Your task to perform on an android device: When is my next meeting? Image 0: 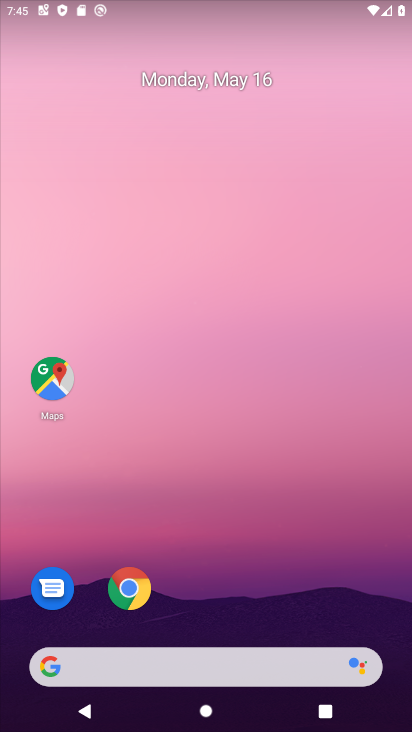
Step 0: drag from (202, 624) to (282, 87)
Your task to perform on an android device: When is my next meeting? Image 1: 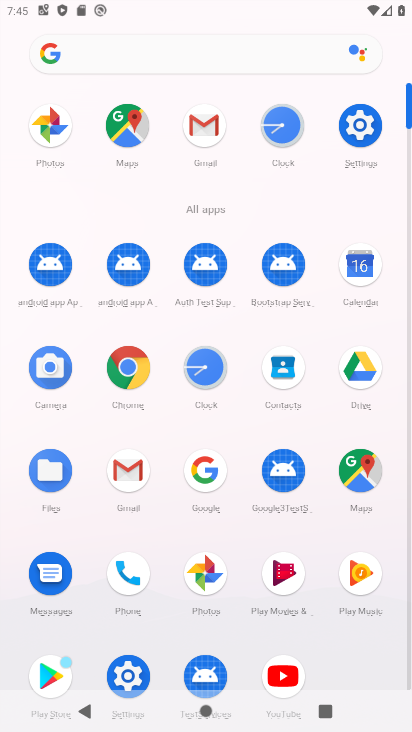
Step 1: click (366, 268)
Your task to perform on an android device: When is my next meeting? Image 2: 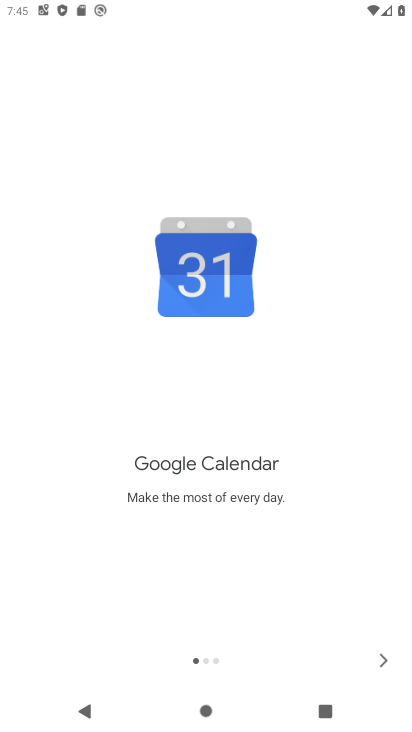
Step 2: click (395, 661)
Your task to perform on an android device: When is my next meeting? Image 3: 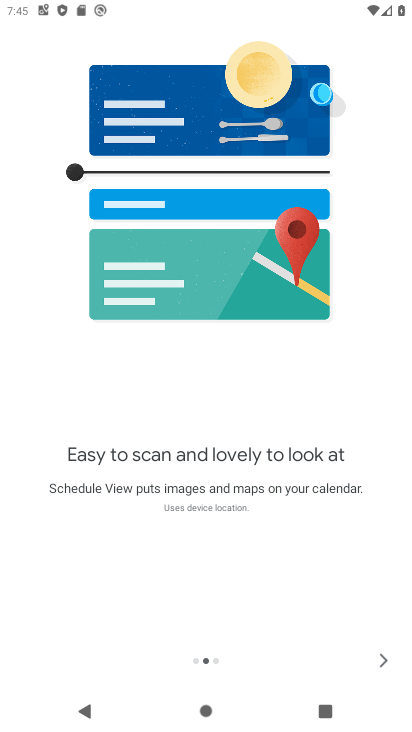
Step 3: click (381, 661)
Your task to perform on an android device: When is my next meeting? Image 4: 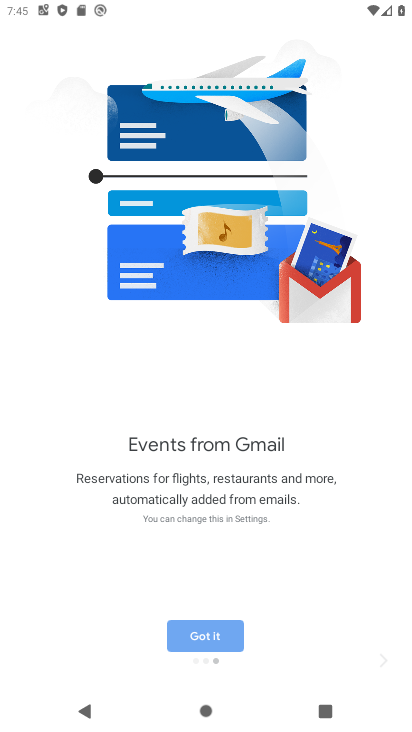
Step 4: click (381, 661)
Your task to perform on an android device: When is my next meeting? Image 5: 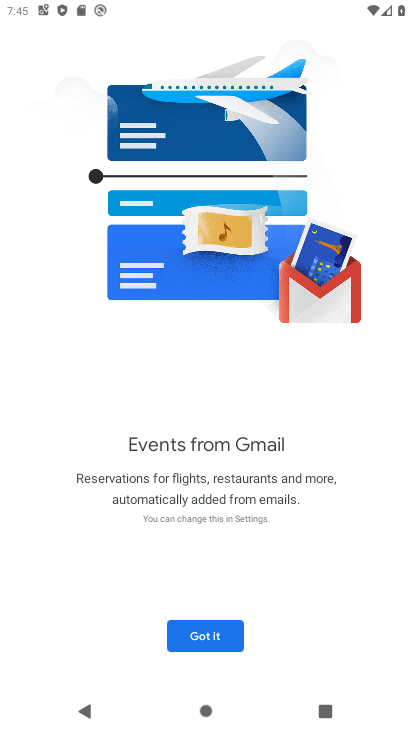
Step 5: click (224, 646)
Your task to perform on an android device: When is my next meeting? Image 6: 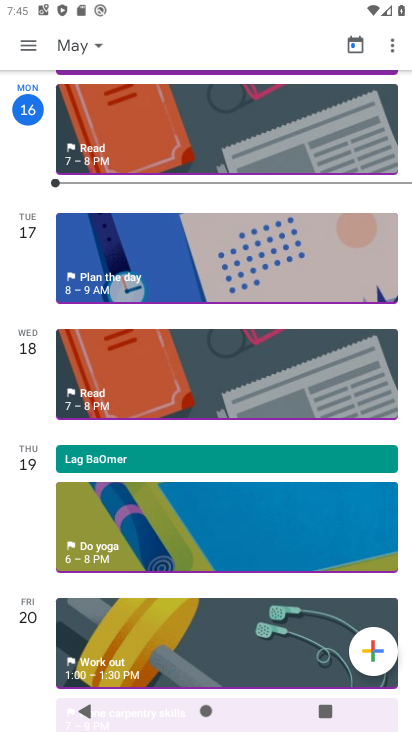
Step 6: click (95, 44)
Your task to perform on an android device: When is my next meeting? Image 7: 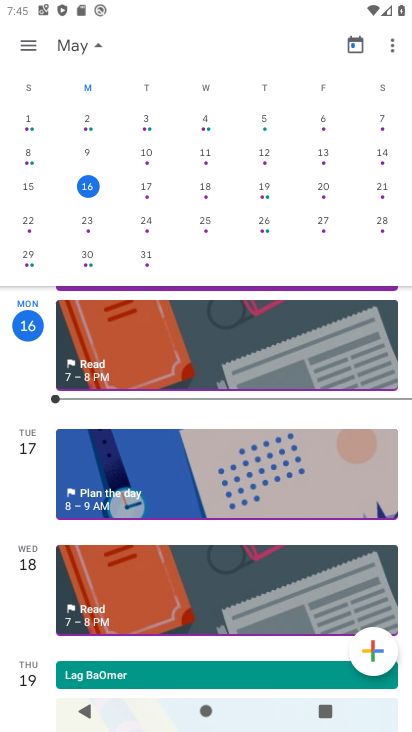
Step 7: drag from (392, 198) to (260, 159)
Your task to perform on an android device: When is my next meeting? Image 8: 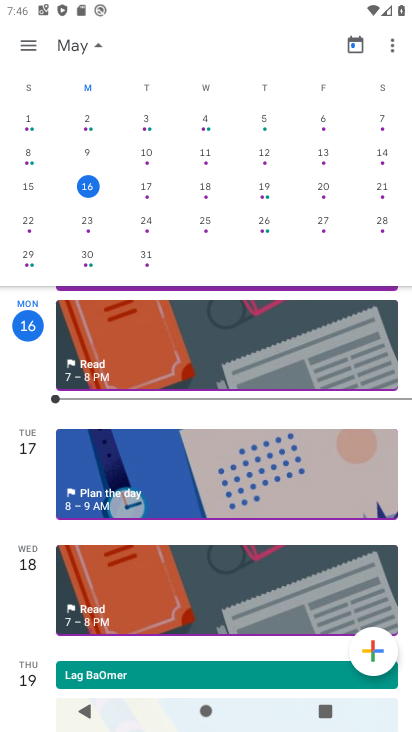
Step 8: click (144, 184)
Your task to perform on an android device: When is my next meeting? Image 9: 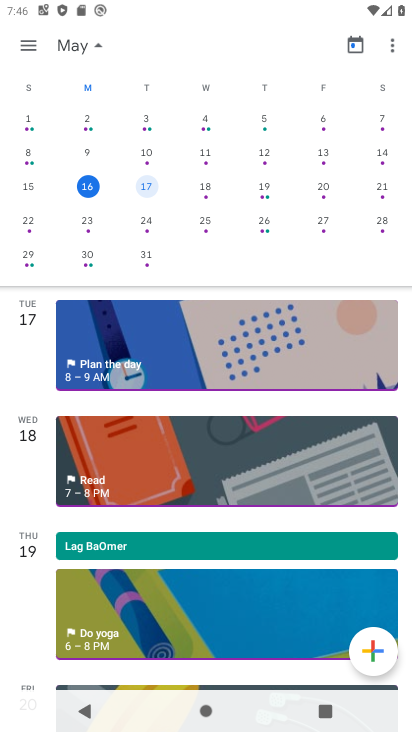
Step 9: click (201, 185)
Your task to perform on an android device: When is my next meeting? Image 10: 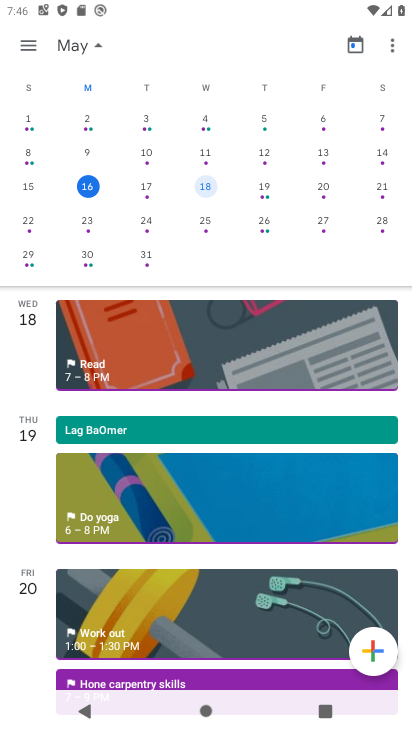
Step 10: click (262, 190)
Your task to perform on an android device: When is my next meeting? Image 11: 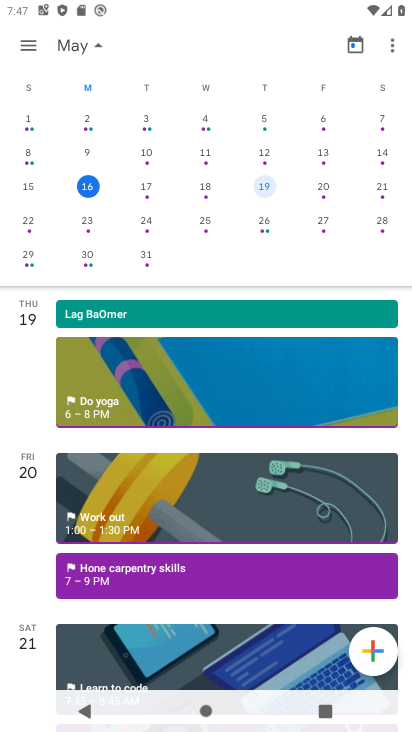
Step 11: click (330, 182)
Your task to perform on an android device: When is my next meeting? Image 12: 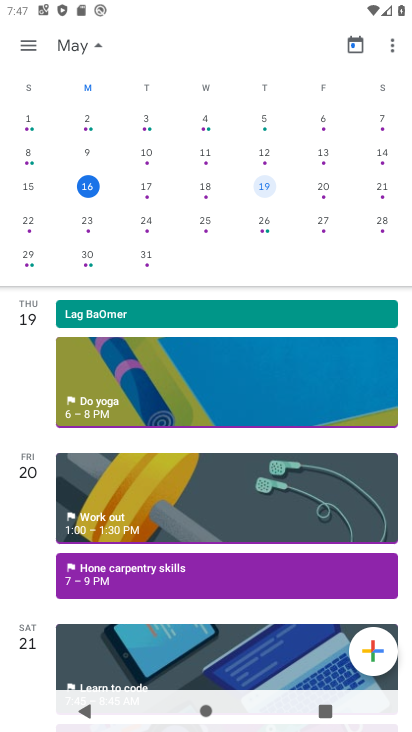
Step 12: click (324, 185)
Your task to perform on an android device: When is my next meeting? Image 13: 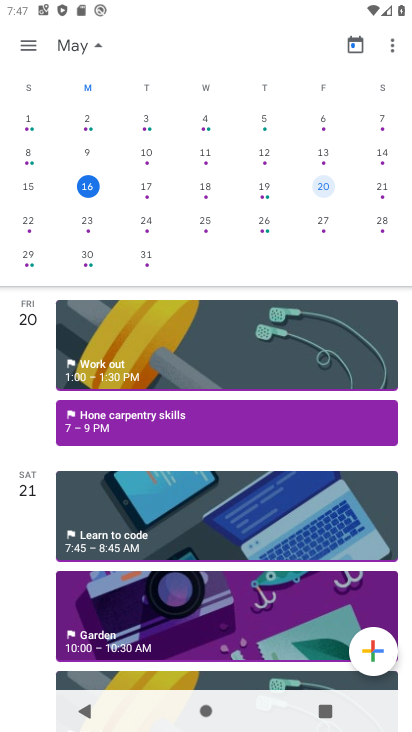
Step 13: task complete